Your task to perform on an android device: turn on the 24-hour format for clock Image 0: 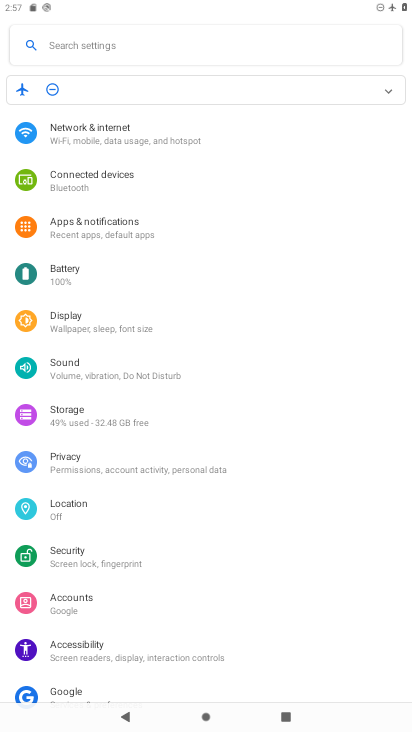
Step 0: press home button
Your task to perform on an android device: turn on the 24-hour format for clock Image 1: 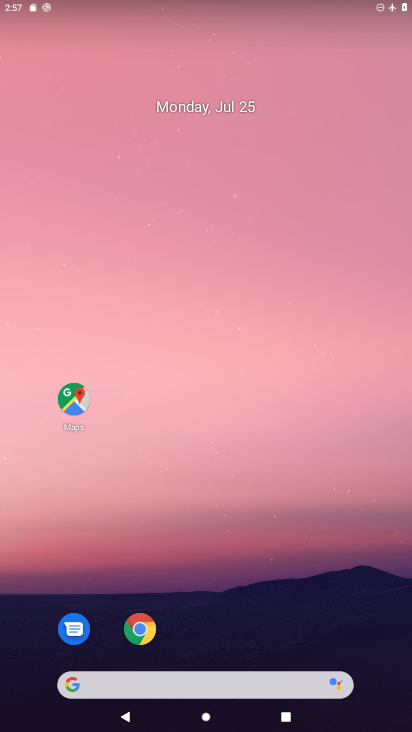
Step 1: drag from (207, 522) to (310, 0)
Your task to perform on an android device: turn on the 24-hour format for clock Image 2: 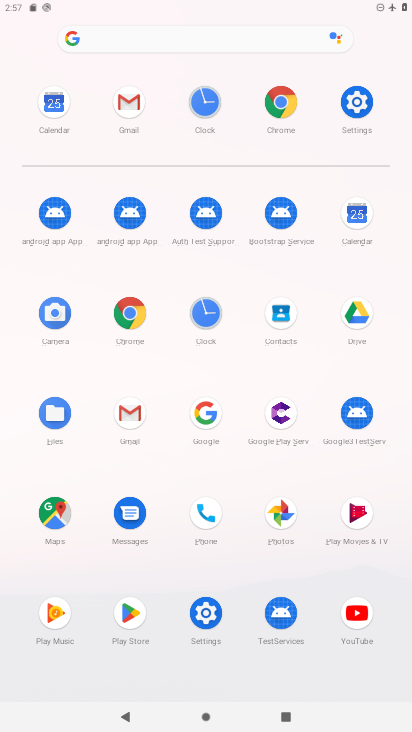
Step 2: click (200, 313)
Your task to perform on an android device: turn on the 24-hour format for clock Image 3: 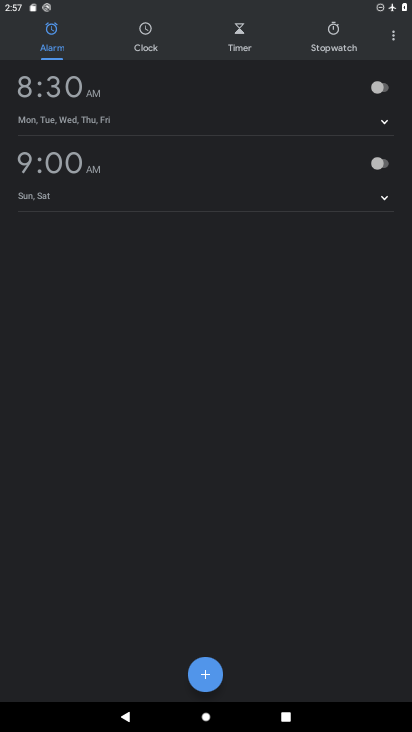
Step 3: click (388, 46)
Your task to perform on an android device: turn on the 24-hour format for clock Image 4: 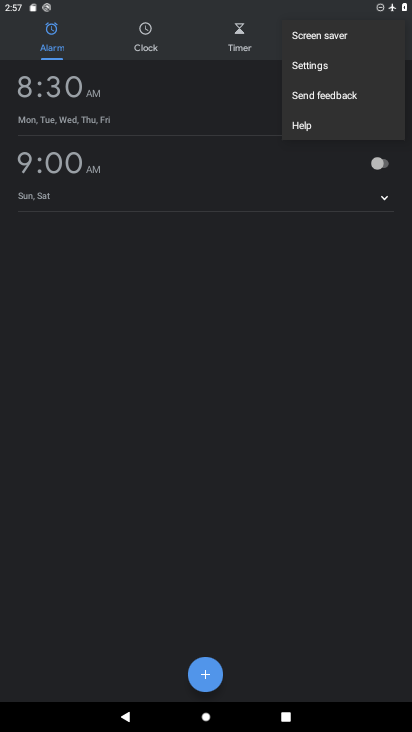
Step 4: click (340, 66)
Your task to perform on an android device: turn on the 24-hour format for clock Image 5: 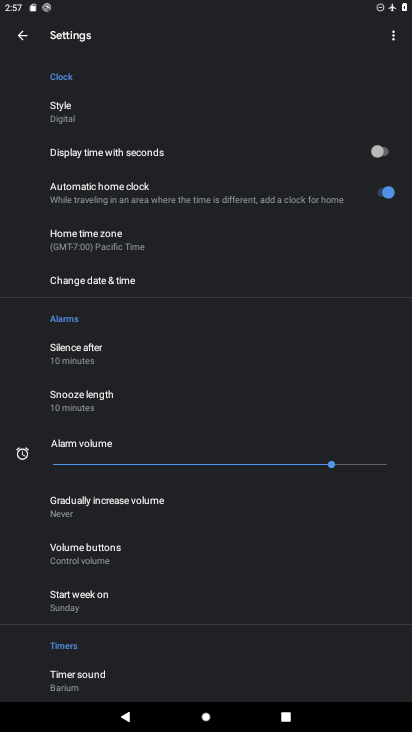
Step 5: drag from (190, 590) to (193, 417)
Your task to perform on an android device: turn on the 24-hour format for clock Image 6: 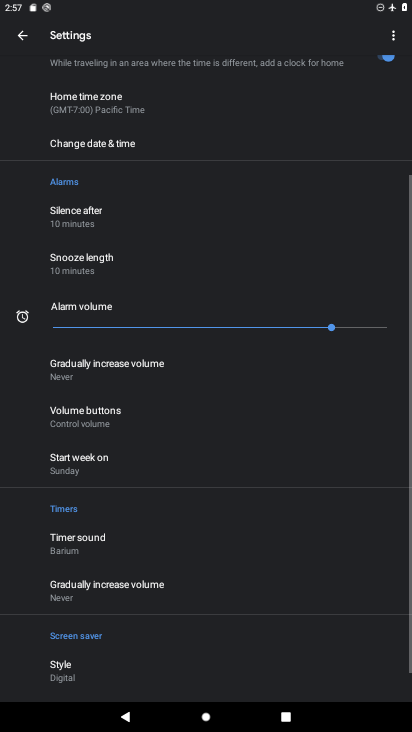
Step 6: click (75, 149)
Your task to perform on an android device: turn on the 24-hour format for clock Image 7: 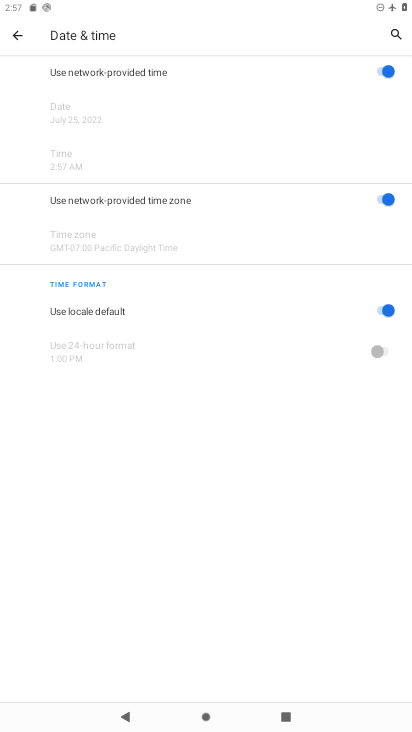
Step 7: click (256, 292)
Your task to perform on an android device: turn on the 24-hour format for clock Image 8: 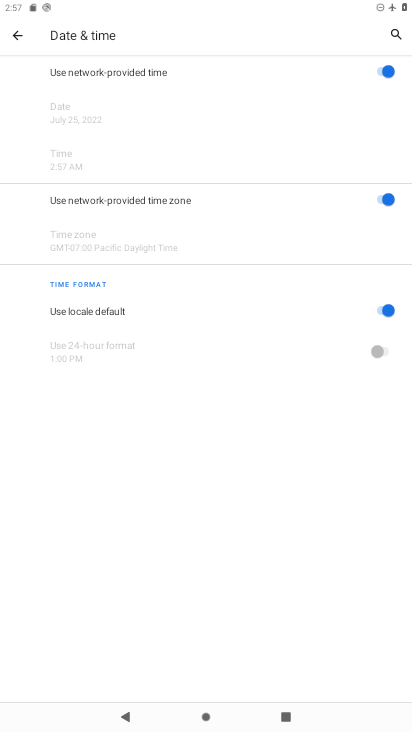
Step 8: click (376, 302)
Your task to perform on an android device: turn on the 24-hour format for clock Image 9: 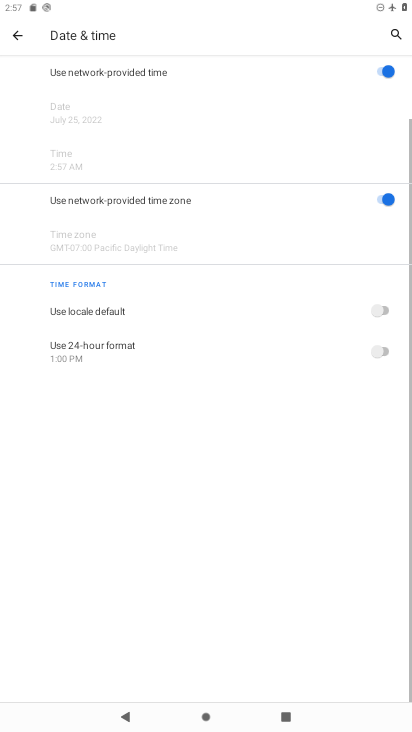
Step 9: click (382, 343)
Your task to perform on an android device: turn on the 24-hour format for clock Image 10: 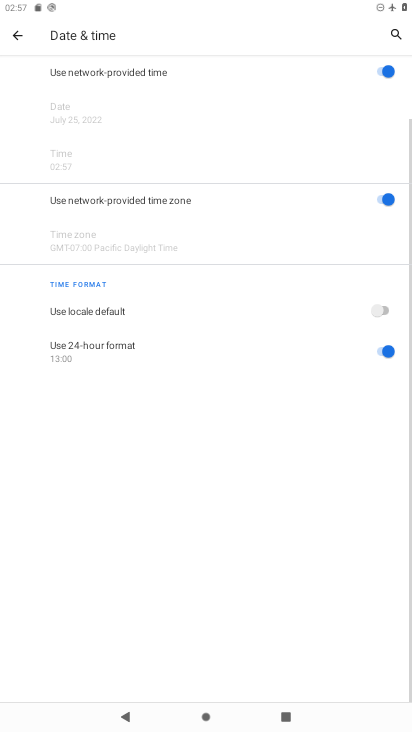
Step 10: task complete